Your task to perform on an android device: choose inbox layout in the gmail app Image 0: 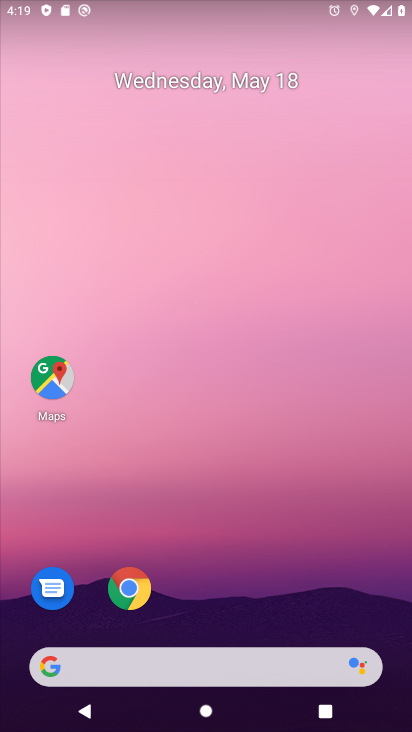
Step 0: drag from (291, 529) to (319, 84)
Your task to perform on an android device: choose inbox layout in the gmail app Image 1: 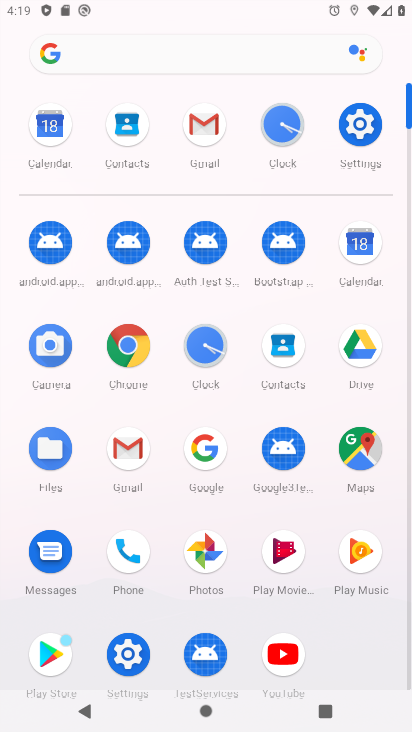
Step 1: click (193, 124)
Your task to perform on an android device: choose inbox layout in the gmail app Image 2: 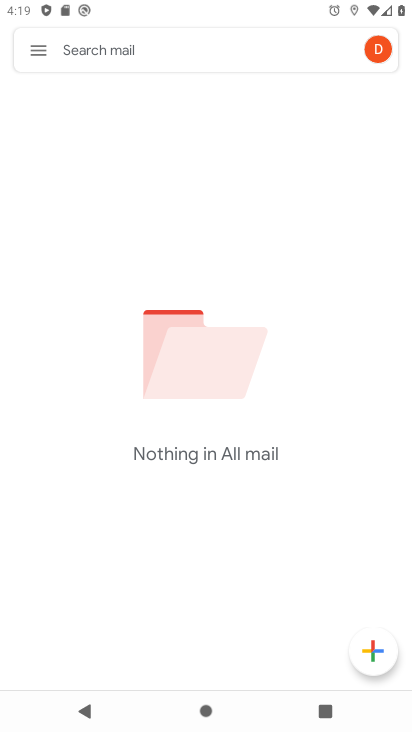
Step 2: click (40, 51)
Your task to perform on an android device: choose inbox layout in the gmail app Image 3: 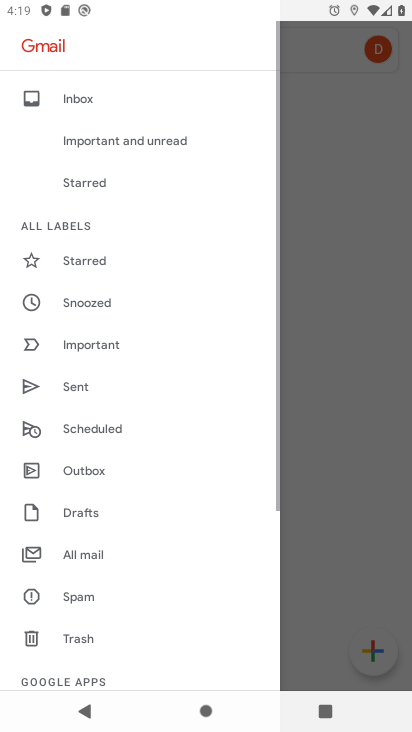
Step 3: drag from (146, 590) to (172, 168)
Your task to perform on an android device: choose inbox layout in the gmail app Image 4: 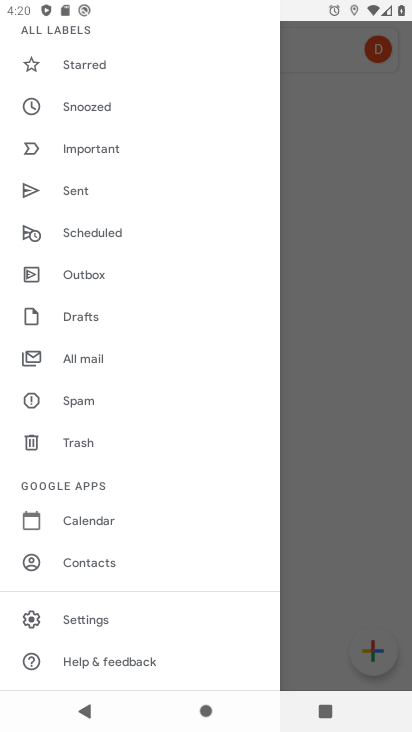
Step 4: click (88, 614)
Your task to perform on an android device: choose inbox layout in the gmail app Image 5: 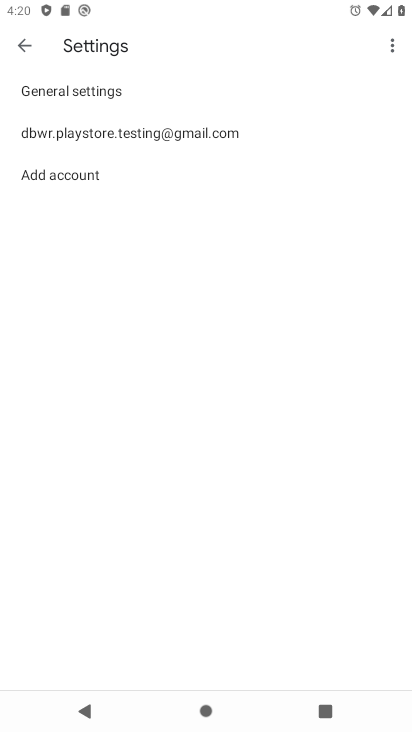
Step 5: click (178, 137)
Your task to perform on an android device: choose inbox layout in the gmail app Image 6: 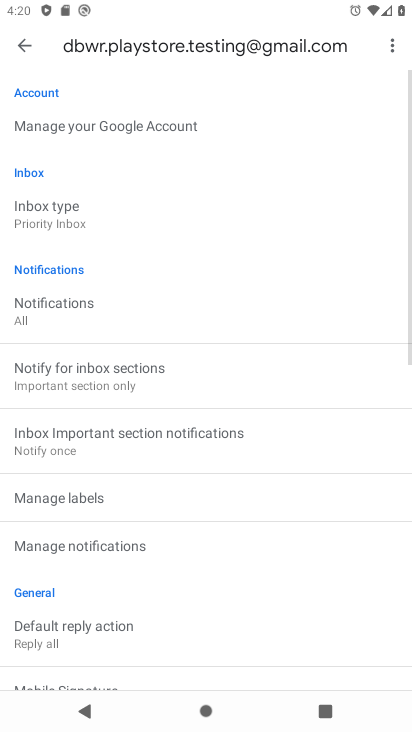
Step 6: click (68, 211)
Your task to perform on an android device: choose inbox layout in the gmail app Image 7: 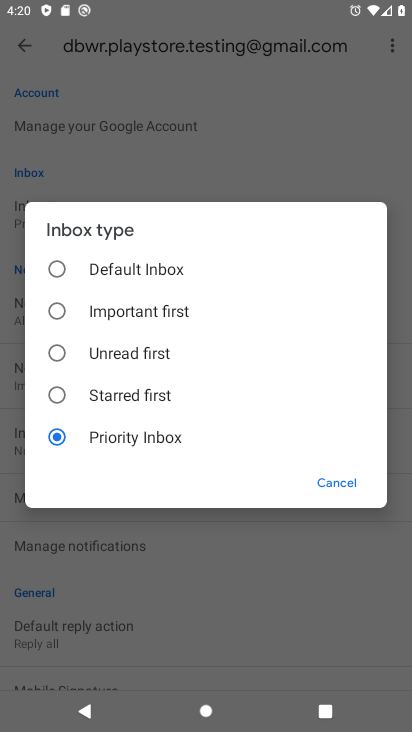
Step 7: task complete